Your task to perform on an android device: open wifi settings Image 0: 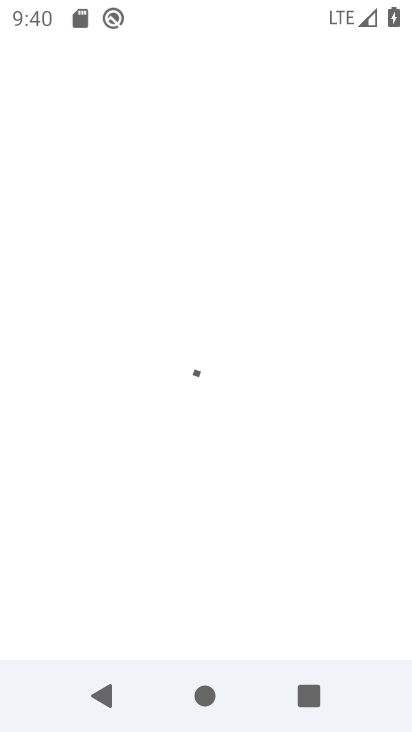
Step 0: drag from (337, 541) to (393, 498)
Your task to perform on an android device: open wifi settings Image 1: 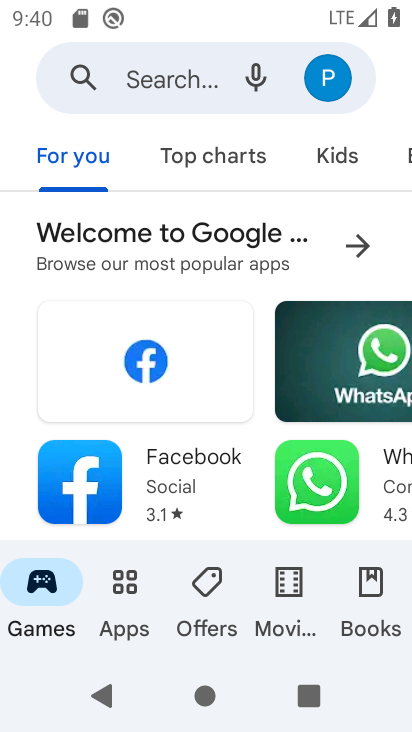
Step 1: press home button
Your task to perform on an android device: open wifi settings Image 2: 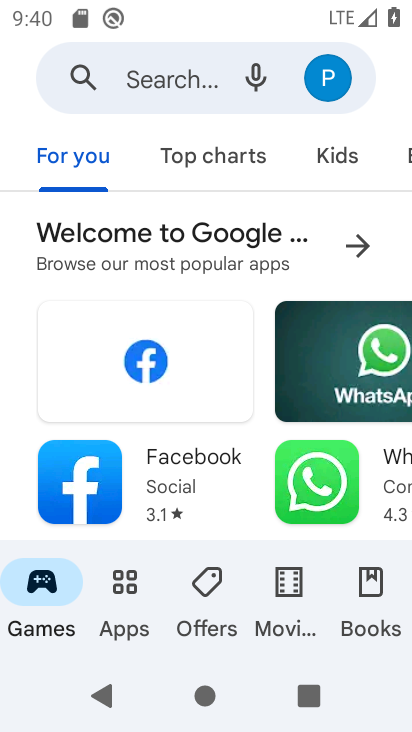
Step 2: click (393, 498)
Your task to perform on an android device: open wifi settings Image 3: 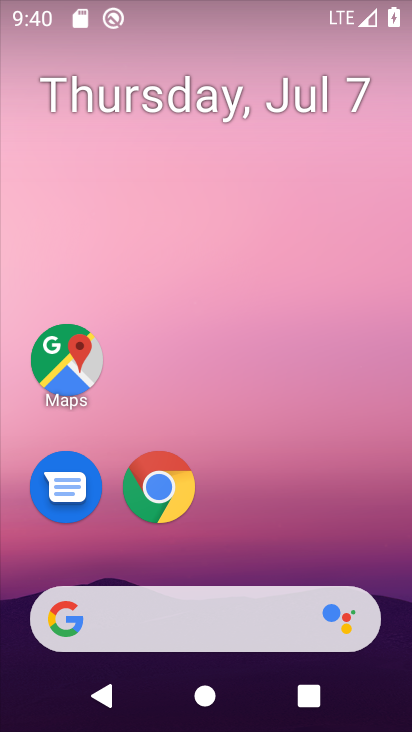
Step 3: drag from (362, 533) to (324, 93)
Your task to perform on an android device: open wifi settings Image 4: 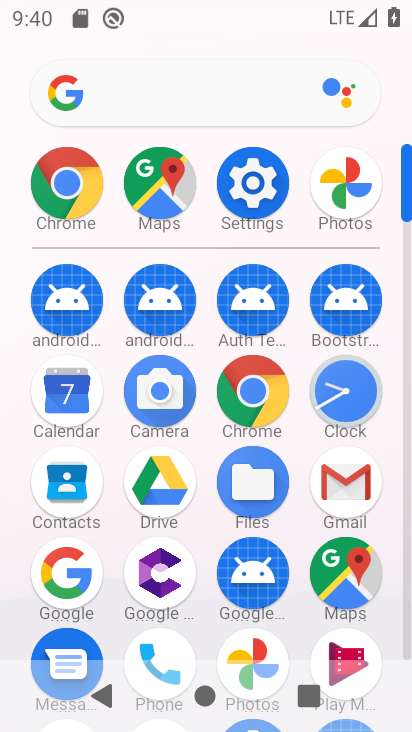
Step 4: click (259, 179)
Your task to perform on an android device: open wifi settings Image 5: 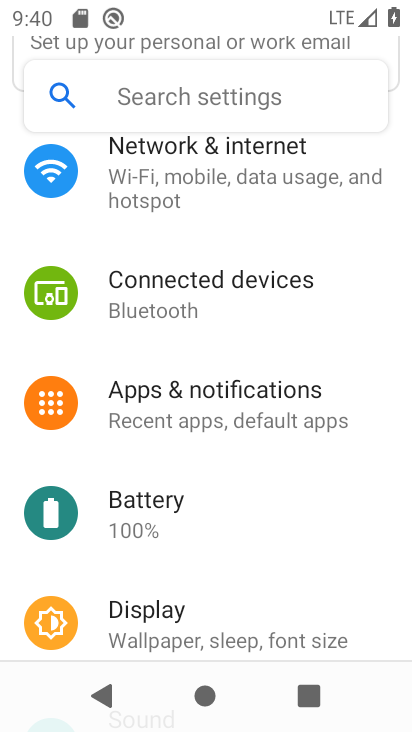
Step 5: drag from (359, 225) to (373, 368)
Your task to perform on an android device: open wifi settings Image 6: 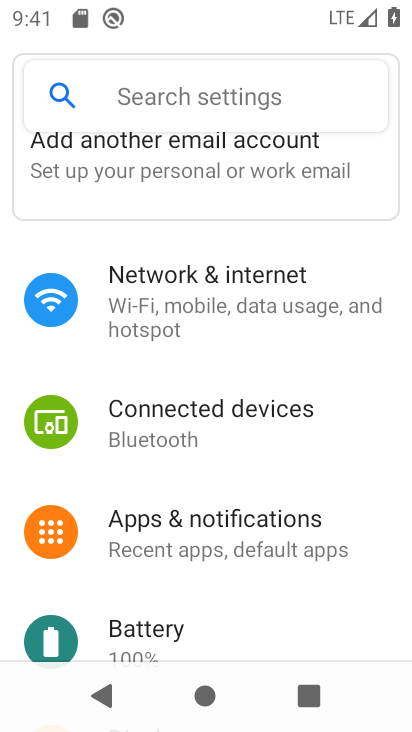
Step 6: drag from (370, 359) to (370, 472)
Your task to perform on an android device: open wifi settings Image 7: 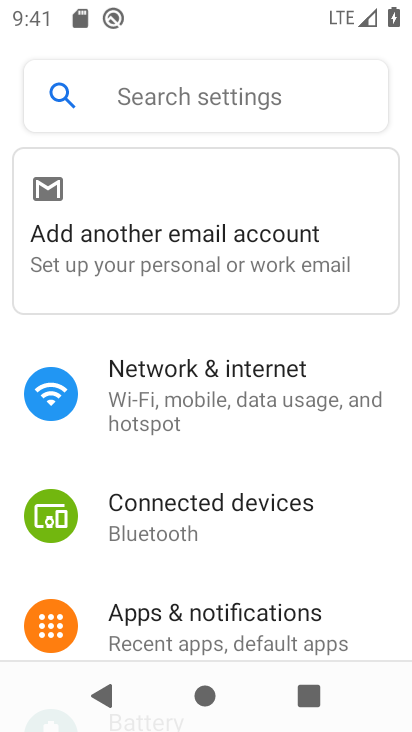
Step 7: drag from (378, 212) to (373, 452)
Your task to perform on an android device: open wifi settings Image 8: 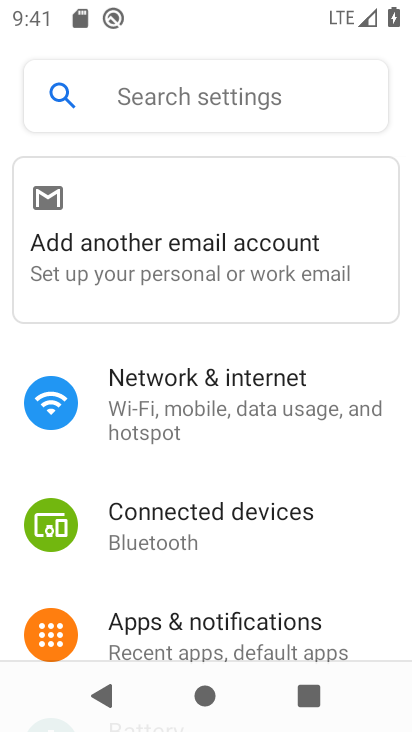
Step 8: click (277, 400)
Your task to perform on an android device: open wifi settings Image 9: 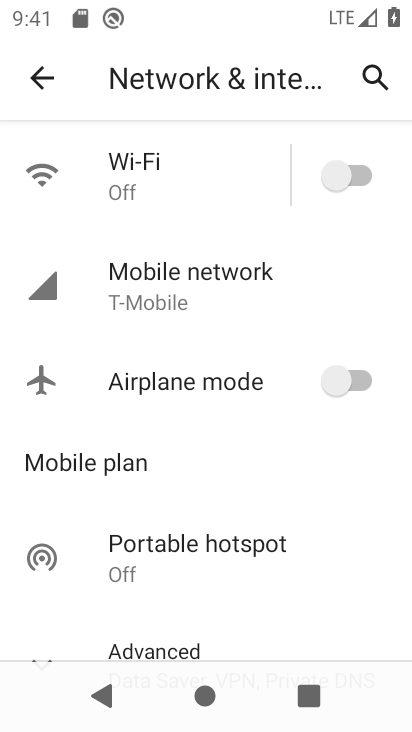
Step 9: click (162, 169)
Your task to perform on an android device: open wifi settings Image 10: 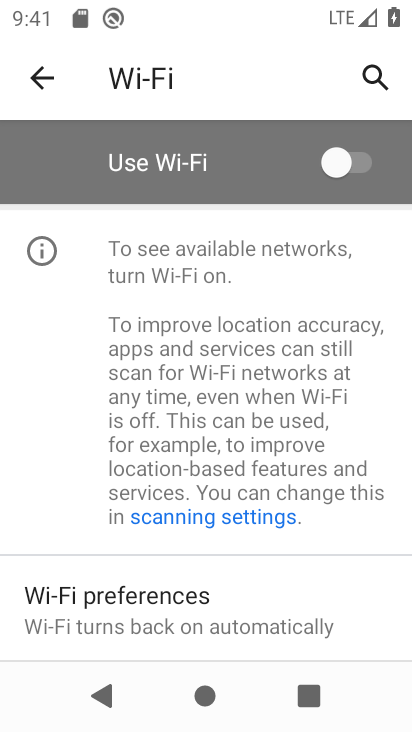
Step 10: task complete